Your task to perform on an android device: uninstall "Contacts" Image 0: 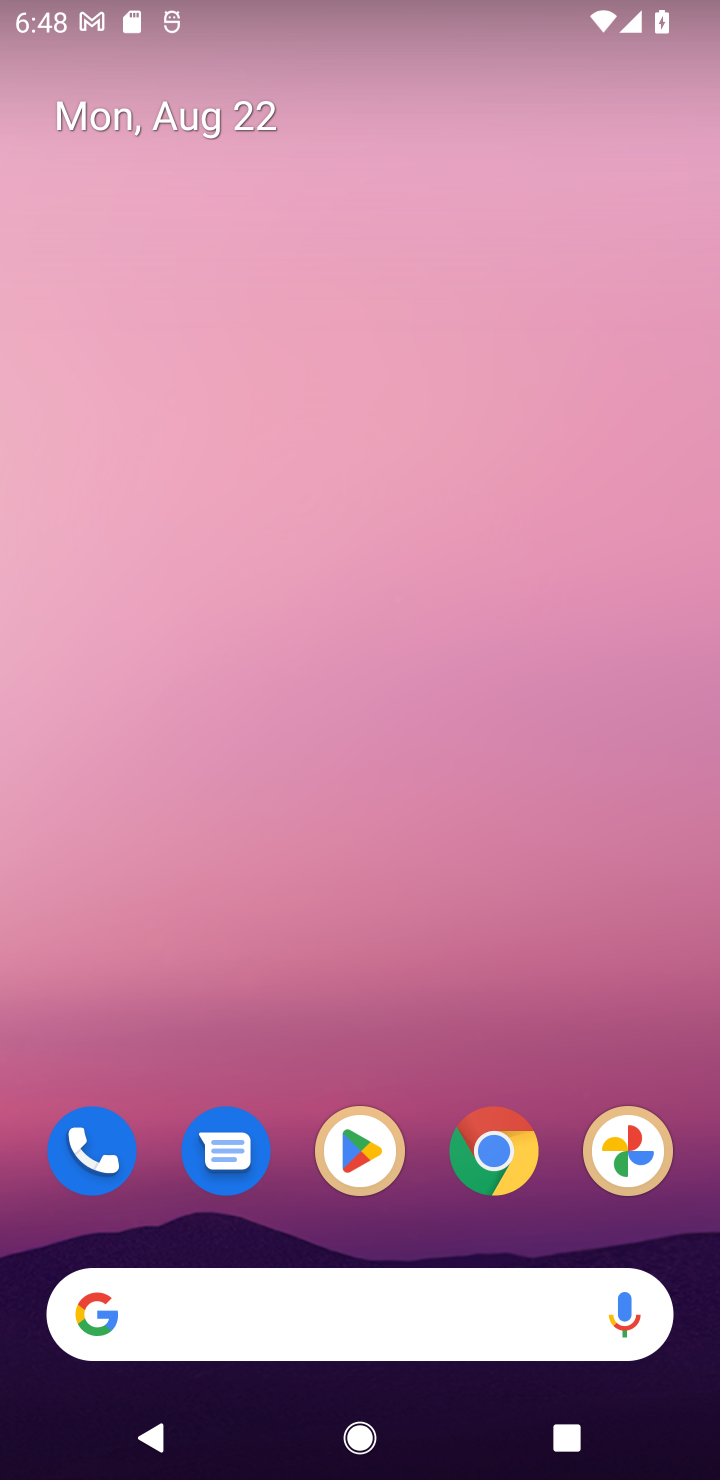
Step 0: click (367, 1142)
Your task to perform on an android device: uninstall "Contacts" Image 1: 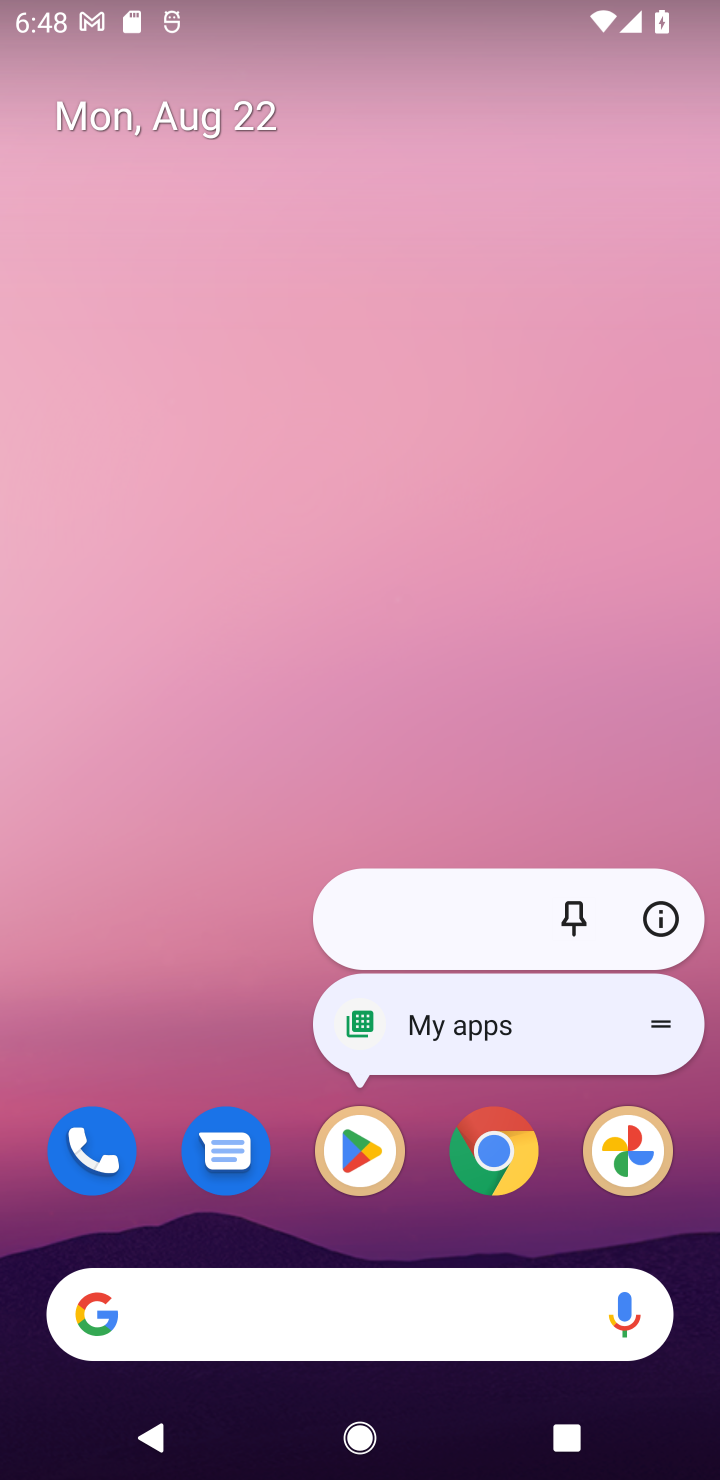
Step 1: click (367, 1153)
Your task to perform on an android device: uninstall "Contacts" Image 2: 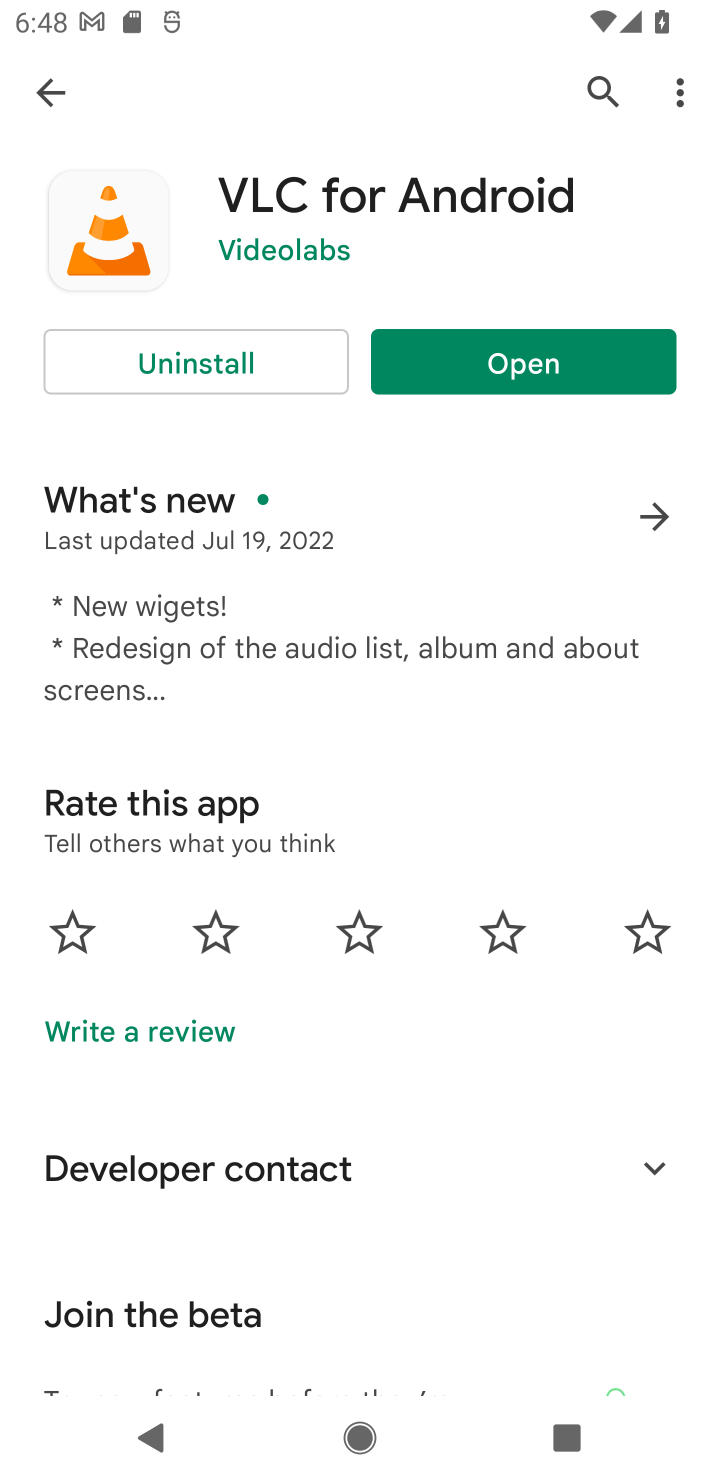
Step 2: click (604, 88)
Your task to perform on an android device: uninstall "Contacts" Image 3: 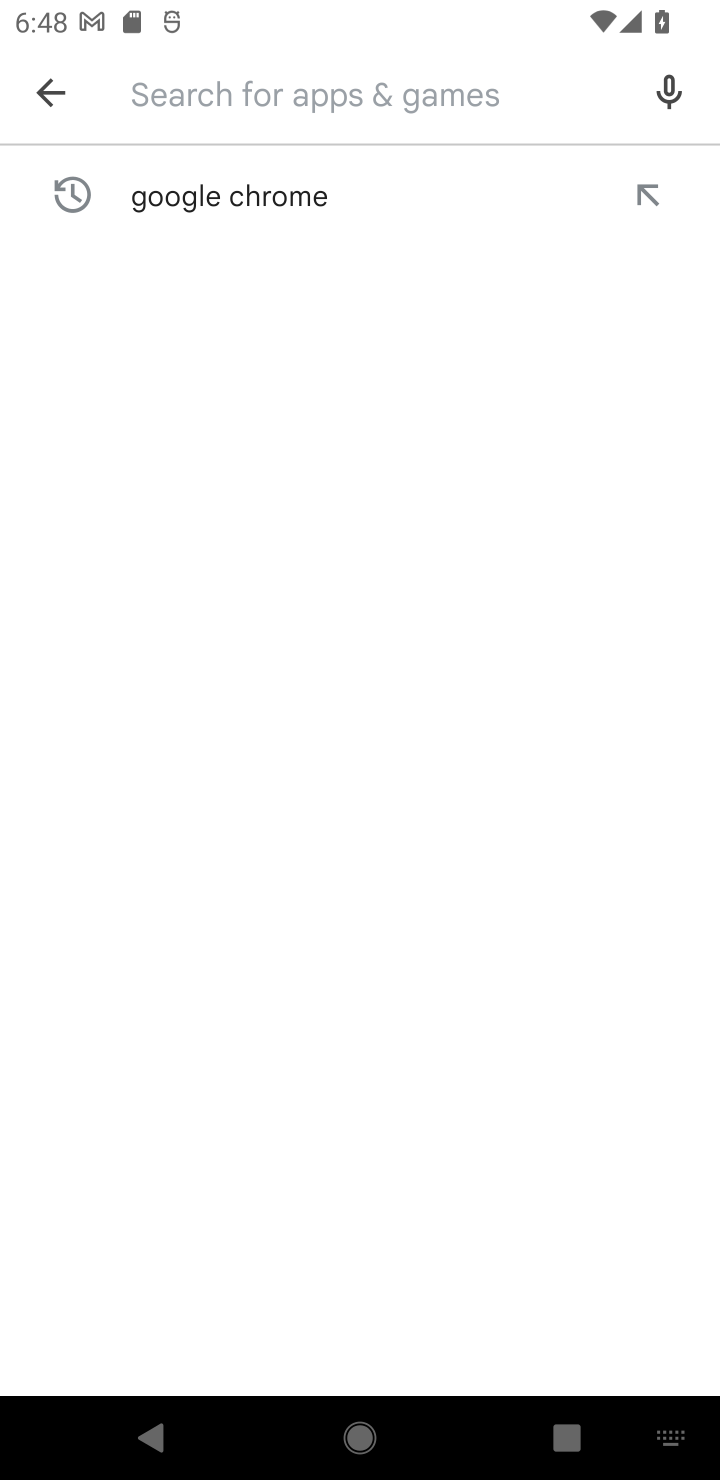
Step 3: type "Contacts"
Your task to perform on an android device: uninstall "Contacts" Image 4: 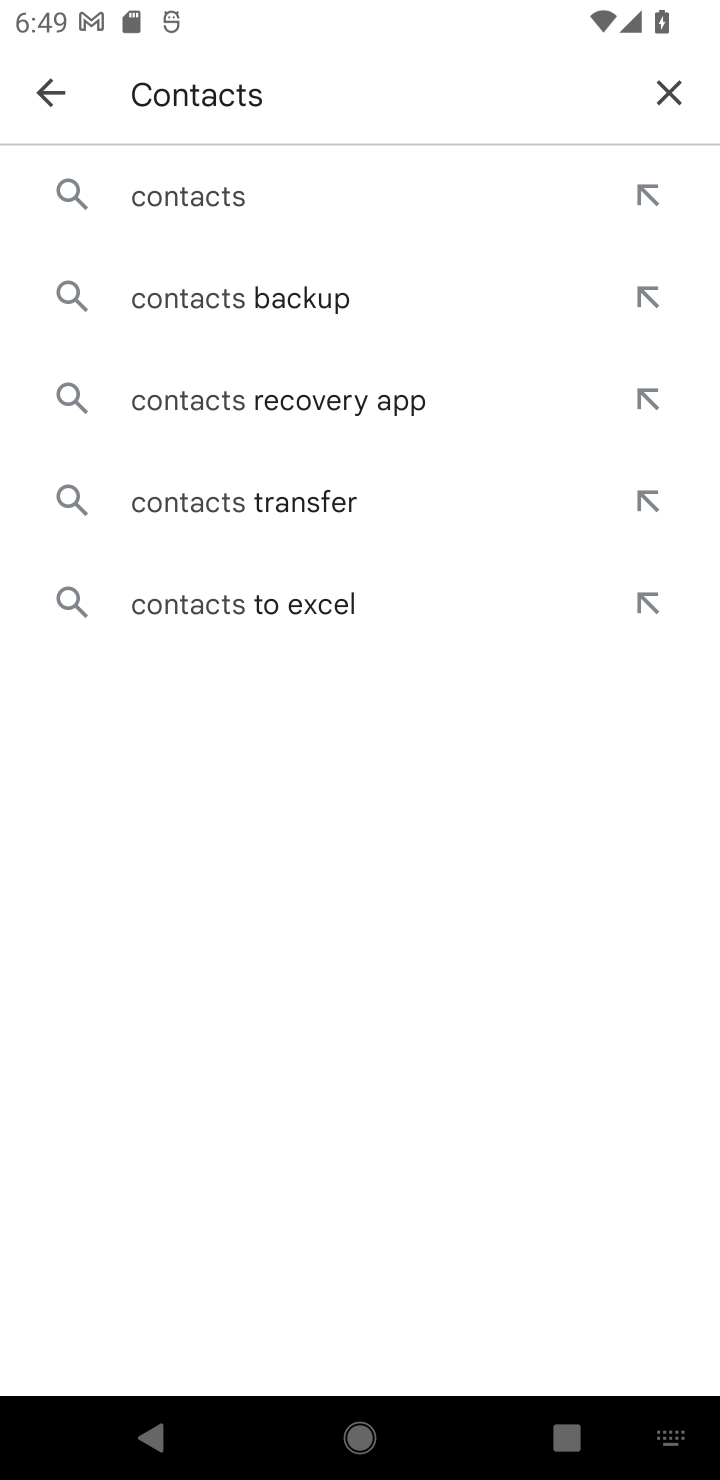
Step 4: click (219, 189)
Your task to perform on an android device: uninstall "Contacts" Image 5: 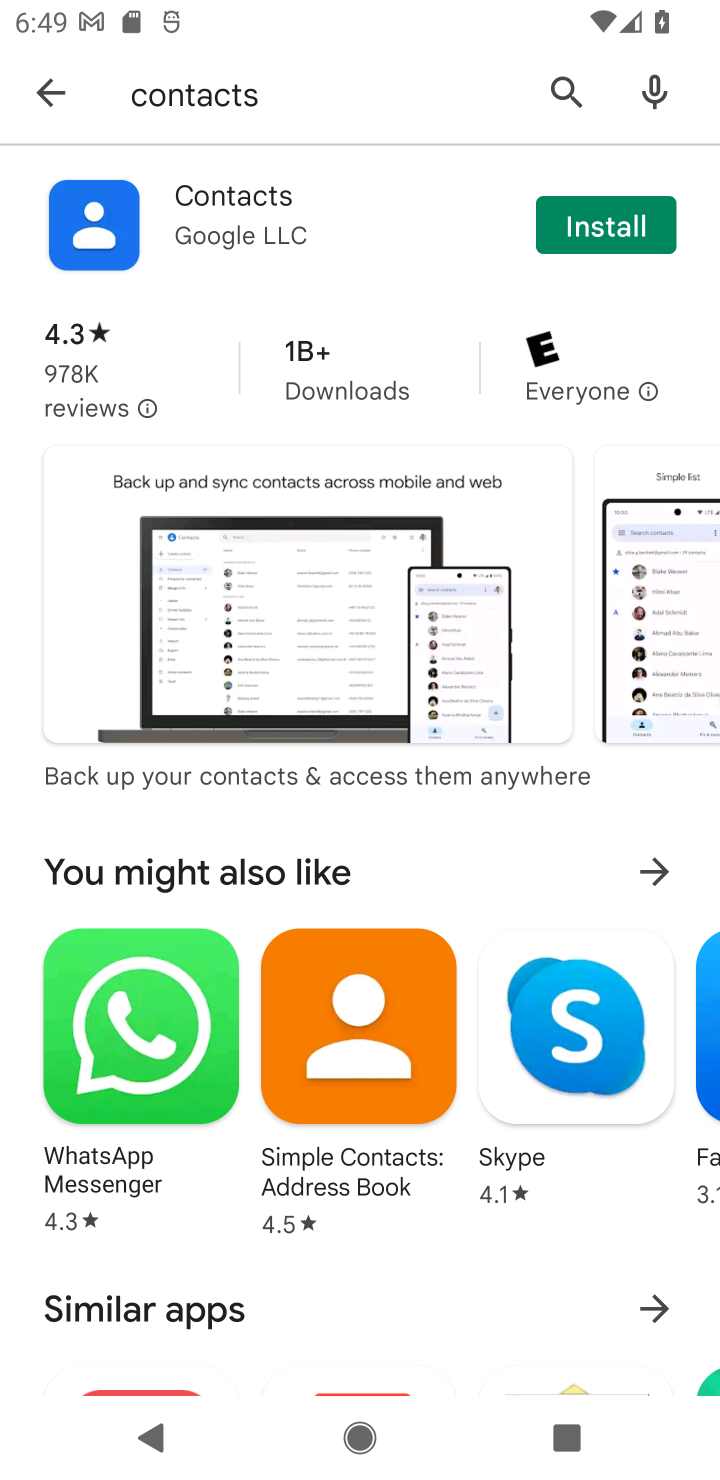
Step 5: task complete